Your task to perform on an android device: open chrome privacy settings Image 0: 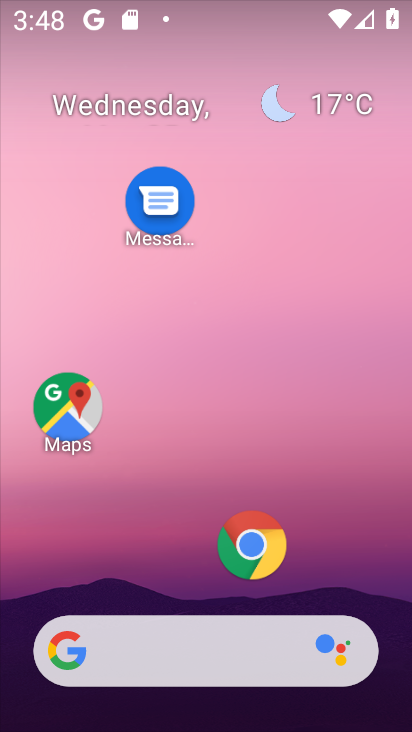
Step 0: click (262, 559)
Your task to perform on an android device: open chrome privacy settings Image 1: 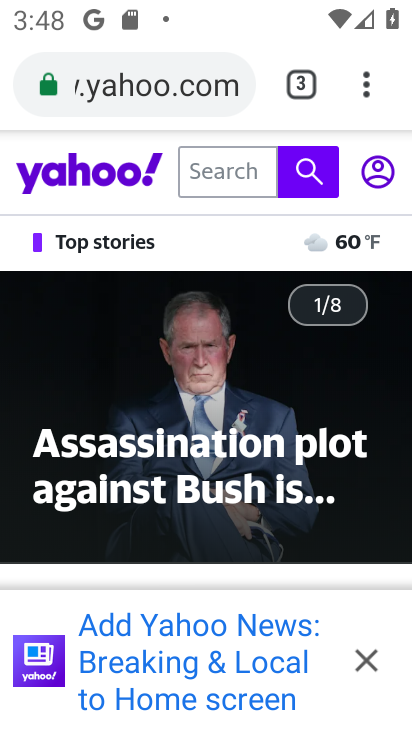
Step 1: press home button
Your task to perform on an android device: open chrome privacy settings Image 2: 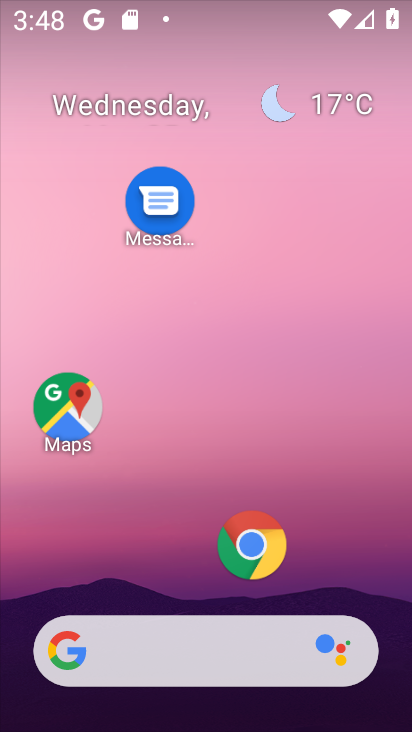
Step 2: click (250, 555)
Your task to perform on an android device: open chrome privacy settings Image 3: 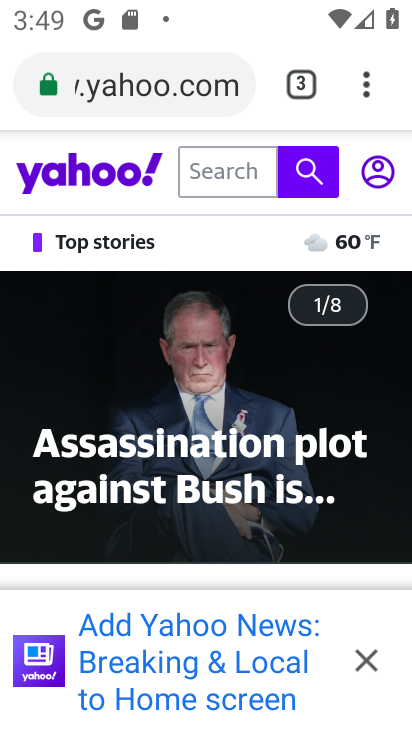
Step 3: click (367, 95)
Your task to perform on an android device: open chrome privacy settings Image 4: 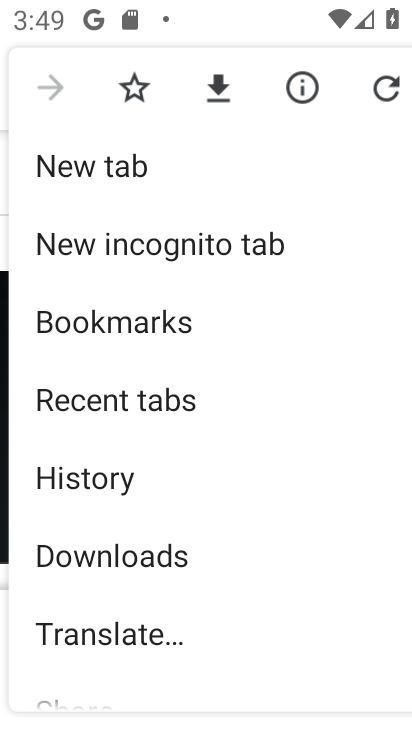
Step 4: drag from (308, 627) to (157, 109)
Your task to perform on an android device: open chrome privacy settings Image 5: 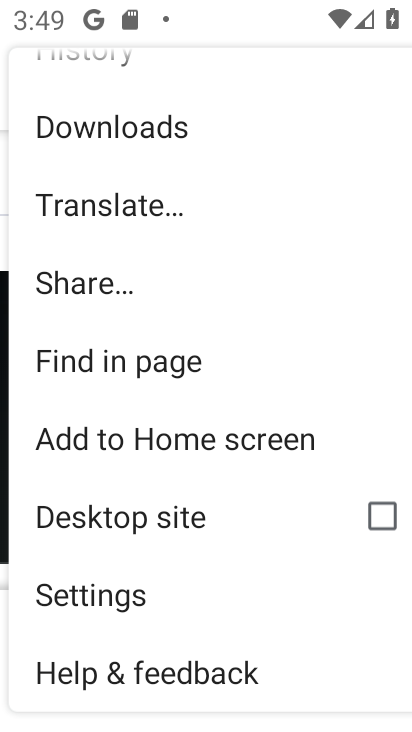
Step 5: click (161, 588)
Your task to perform on an android device: open chrome privacy settings Image 6: 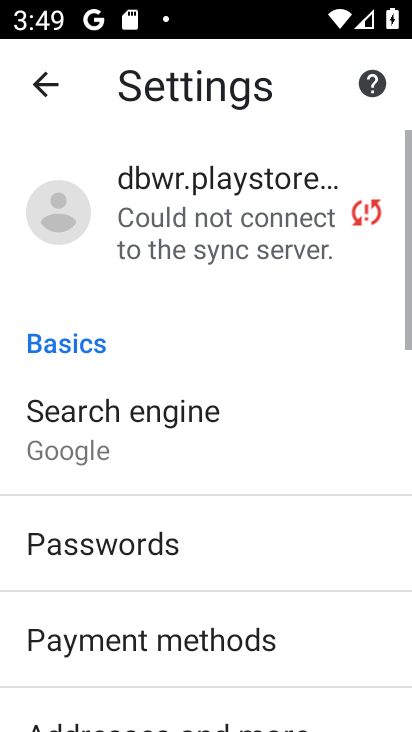
Step 6: drag from (208, 590) to (157, 180)
Your task to perform on an android device: open chrome privacy settings Image 7: 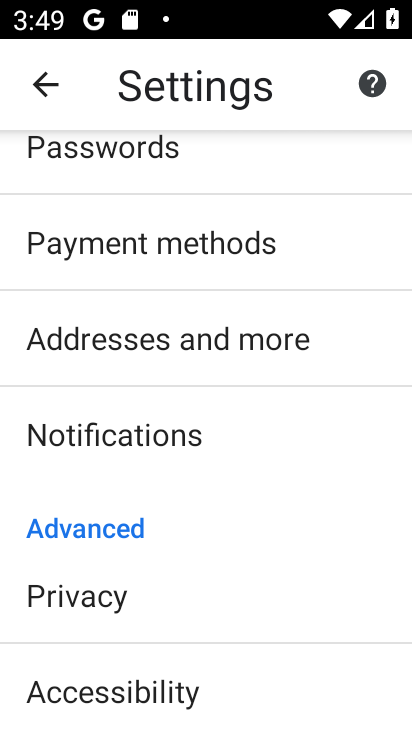
Step 7: click (168, 621)
Your task to perform on an android device: open chrome privacy settings Image 8: 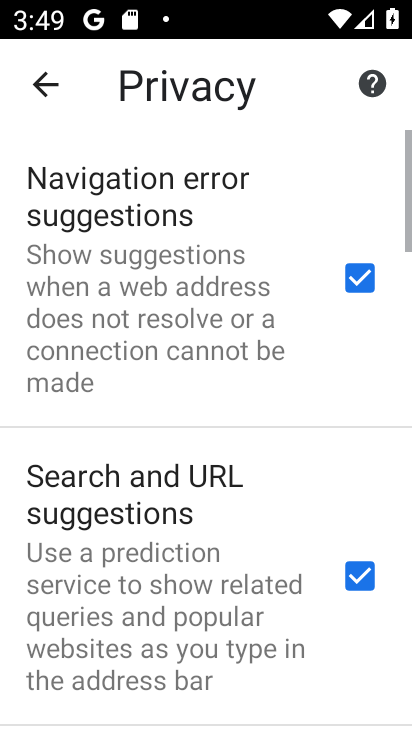
Step 8: task complete